Your task to perform on an android device: Open internet settings Image 0: 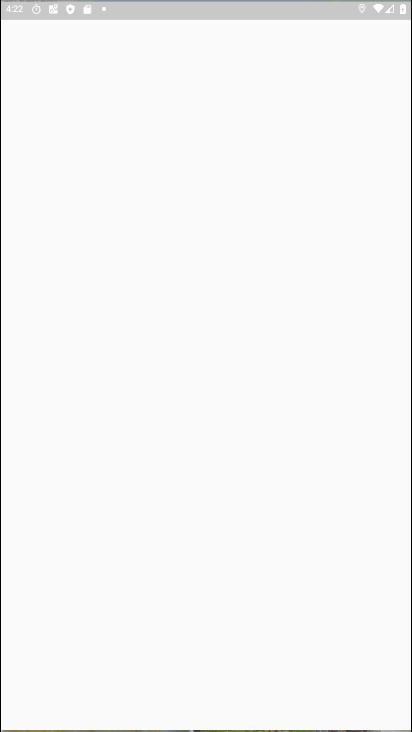
Step 0: press home button
Your task to perform on an android device: Open internet settings Image 1: 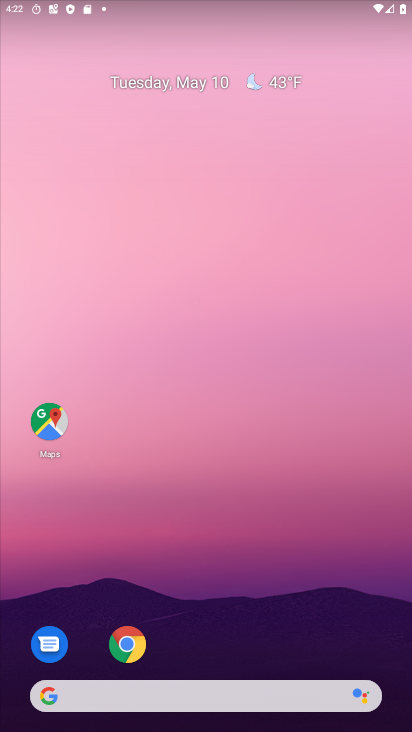
Step 1: drag from (224, 686) to (229, 346)
Your task to perform on an android device: Open internet settings Image 2: 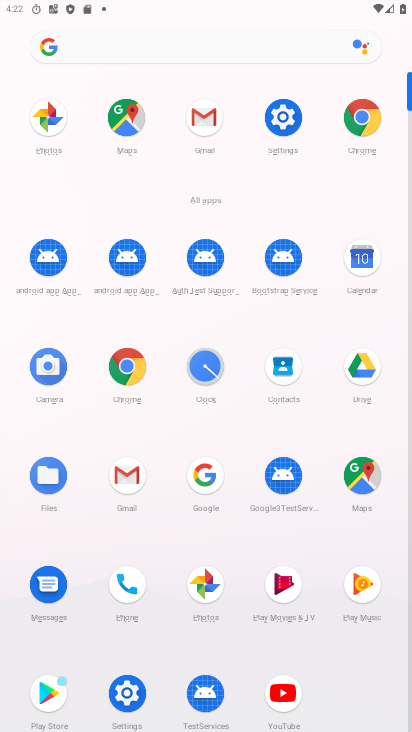
Step 2: click (278, 120)
Your task to perform on an android device: Open internet settings Image 3: 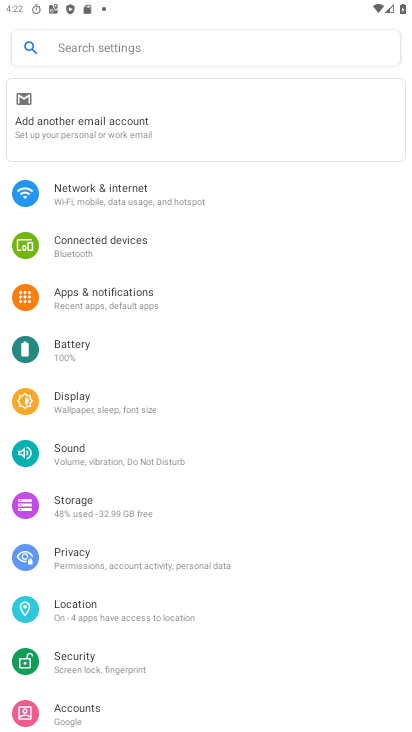
Step 3: click (111, 202)
Your task to perform on an android device: Open internet settings Image 4: 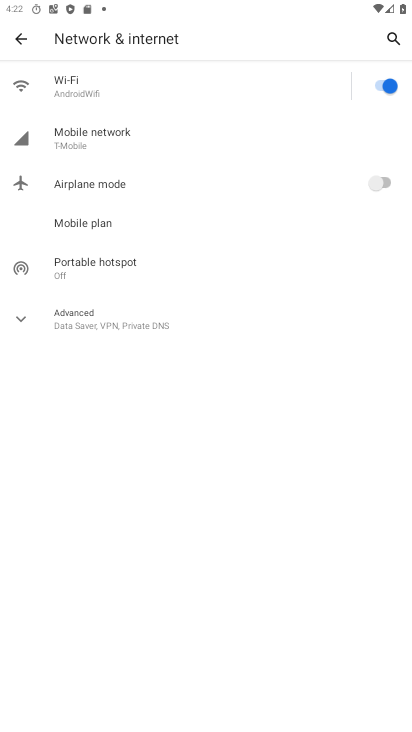
Step 4: click (99, 323)
Your task to perform on an android device: Open internet settings Image 5: 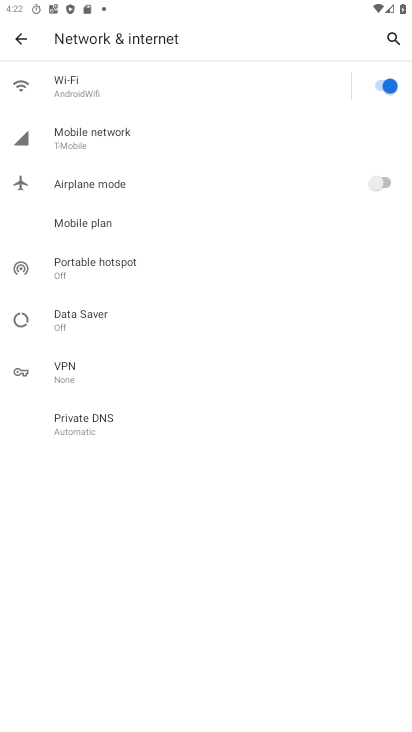
Step 5: task complete